Your task to perform on an android device: change the upload size in google photos Image 0: 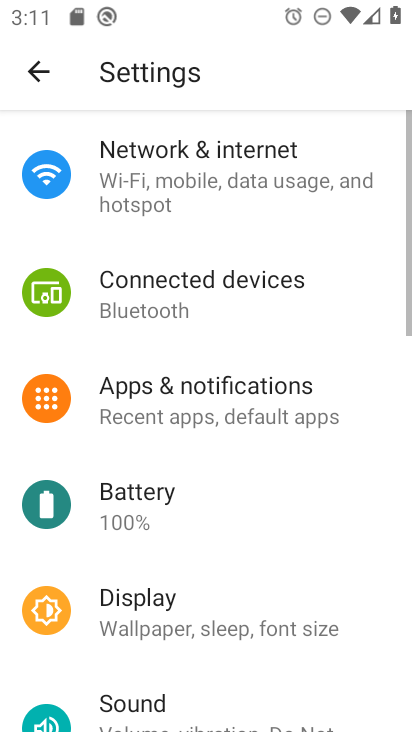
Step 0: press home button
Your task to perform on an android device: change the upload size in google photos Image 1: 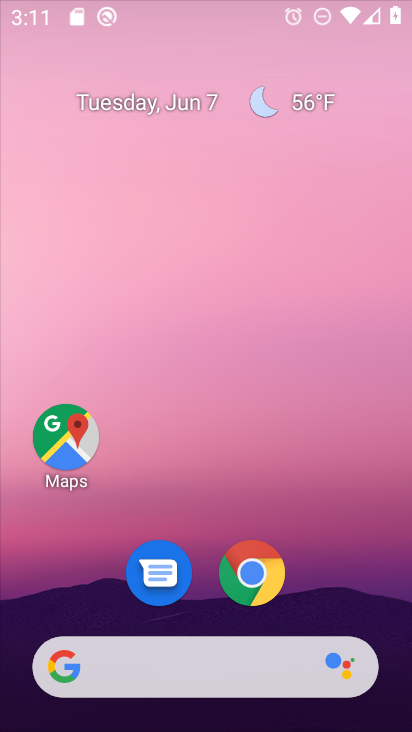
Step 1: drag from (348, 622) to (365, 15)
Your task to perform on an android device: change the upload size in google photos Image 2: 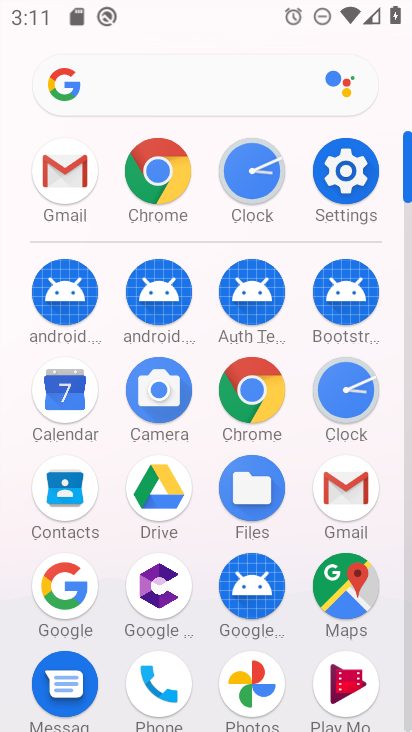
Step 2: click (234, 686)
Your task to perform on an android device: change the upload size in google photos Image 3: 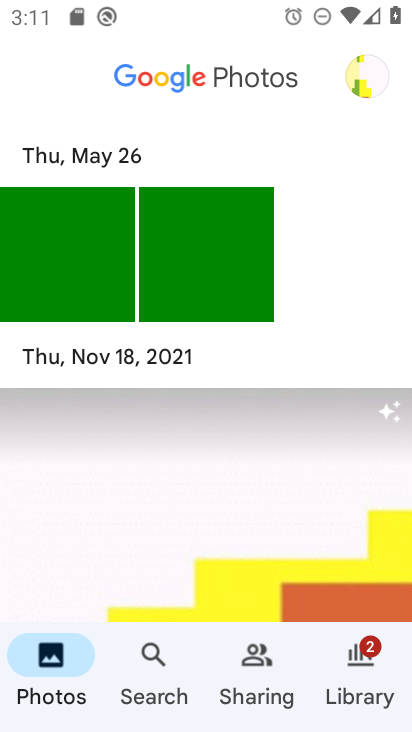
Step 3: click (373, 71)
Your task to perform on an android device: change the upload size in google photos Image 4: 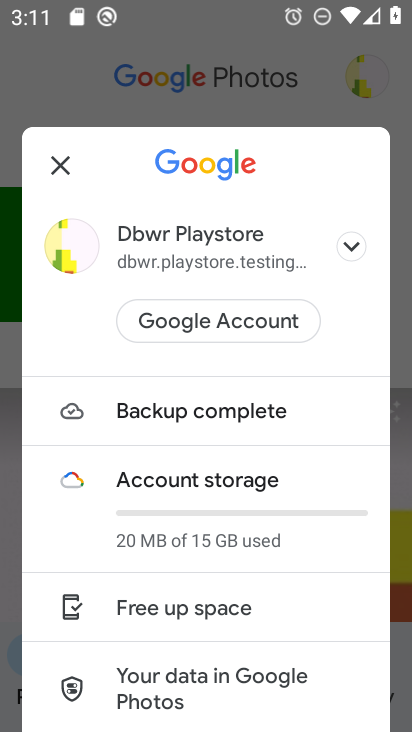
Step 4: drag from (284, 643) to (281, 164)
Your task to perform on an android device: change the upload size in google photos Image 5: 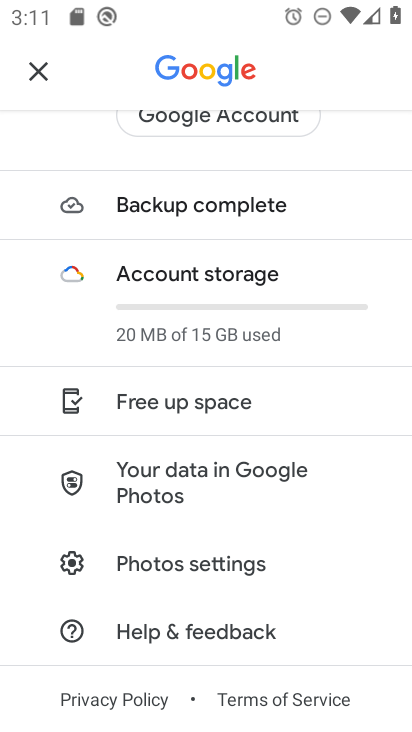
Step 5: click (186, 582)
Your task to perform on an android device: change the upload size in google photos Image 6: 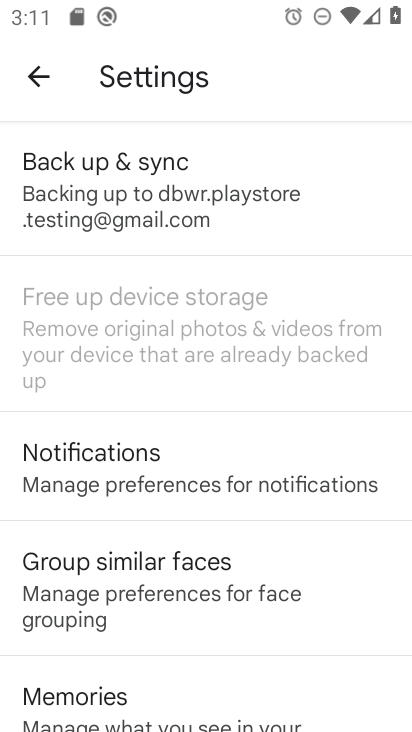
Step 6: click (241, 215)
Your task to perform on an android device: change the upload size in google photos Image 7: 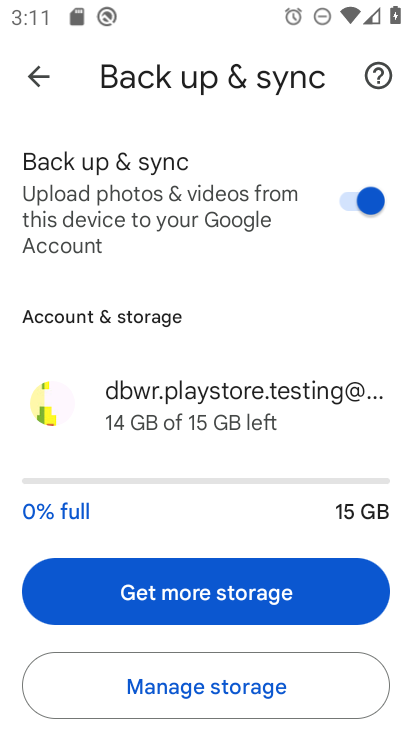
Step 7: drag from (150, 609) to (234, 169)
Your task to perform on an android device: change the upload size in google photos Image 8: 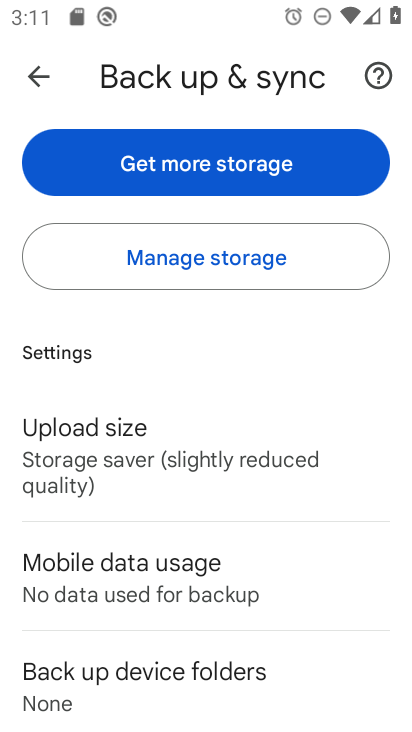
Step 8: drag from (214, 691) to (324, 250)
Your task to perform on an android device: change the upload size in google photos Image 9: 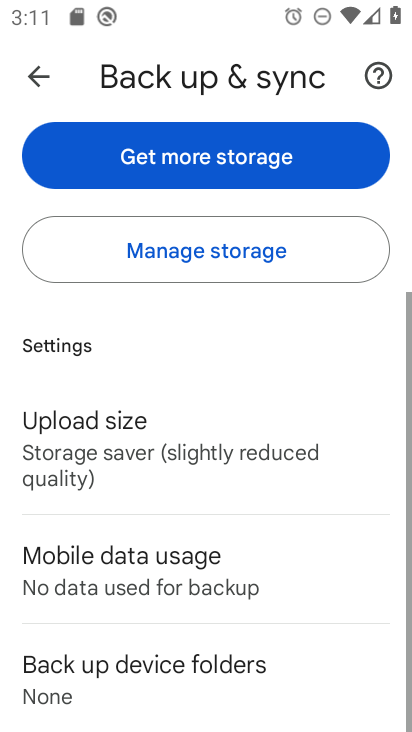
Step 9: click (107, 463)
Your task to perform on an android device: change the upload size in google photos Image 10: 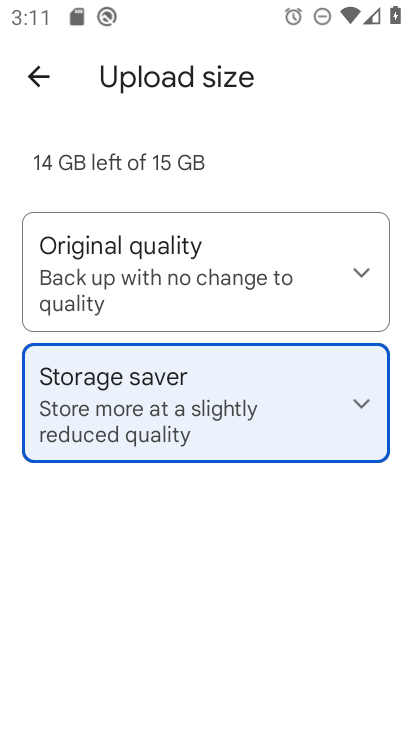
Step 10: click (201, 252)
Your task to perform on an android device: change the upload size in google photos Image 11: 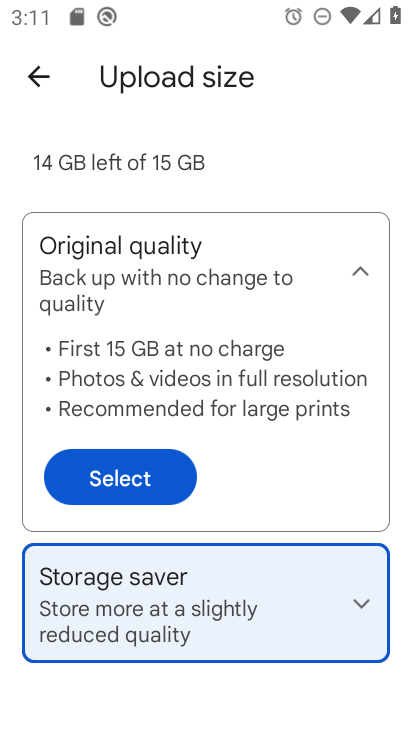
Step 11: click (126, 485)
Your task to perform on an android device: change the upload size in google photos Image 12: 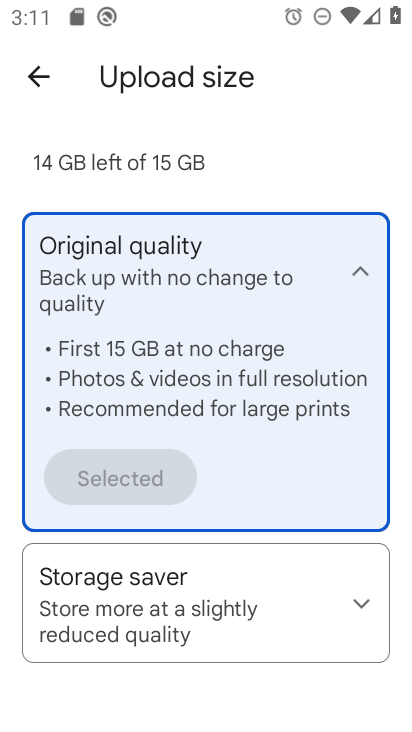
Step 12: task complete